Your task to perform on an android device: Play the last video I watched on Youtube Image 0: 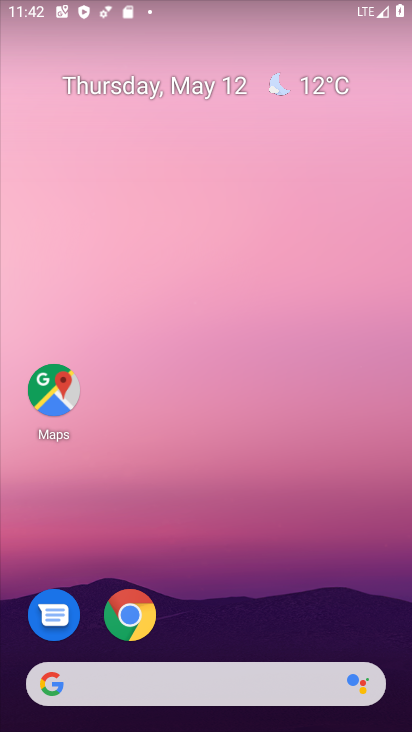
Step 0: drag from (175, 610) to (187, 220)
Your task to perform on an android device: Play the last video I watched on Youtube Image 1: 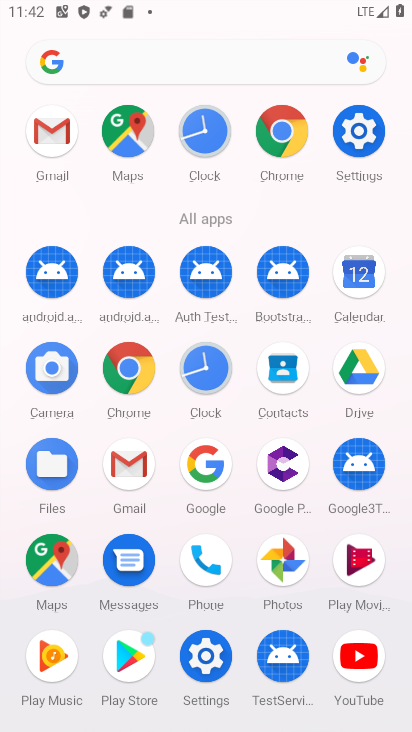
Step 1: click (353, 652)
Your task to perform on an android device: Play the last video I watched on Youtube Image 2: 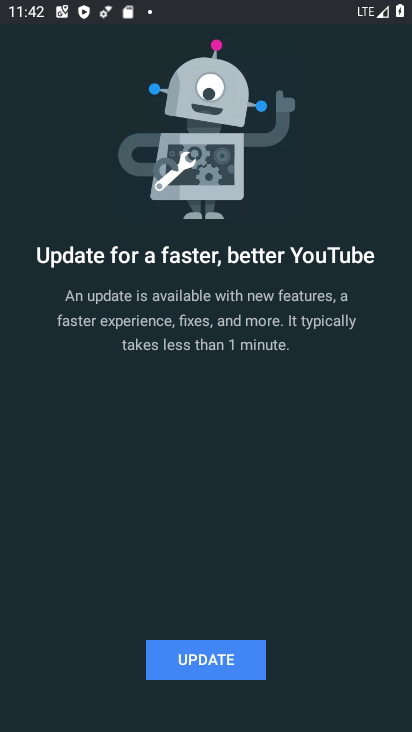
Step 2: click (211, 649)
Your task to perform on an android device: Play the last video I watched on Youtube Image 3: 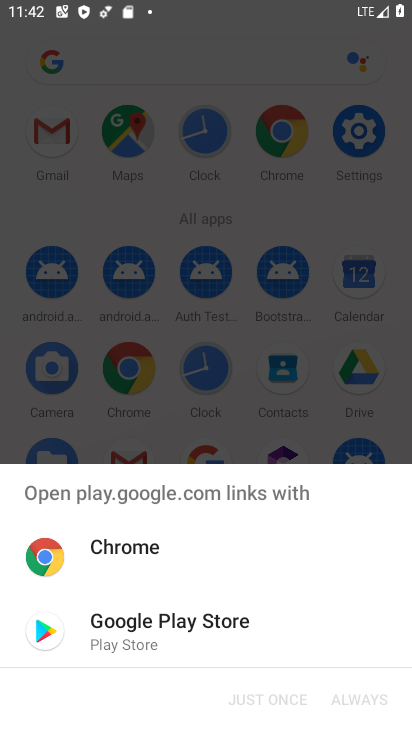
Step 3: click (218, 615)
Your task to perform on an android device: Play the last video I watched on Youtube Image 4: 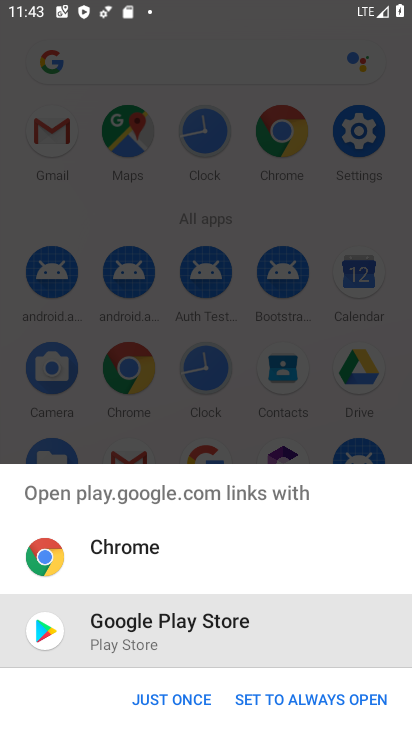
Step 4: click (156, 696)
Your task to perform on an android device: Play the last video I watched on Youtube Image 5: 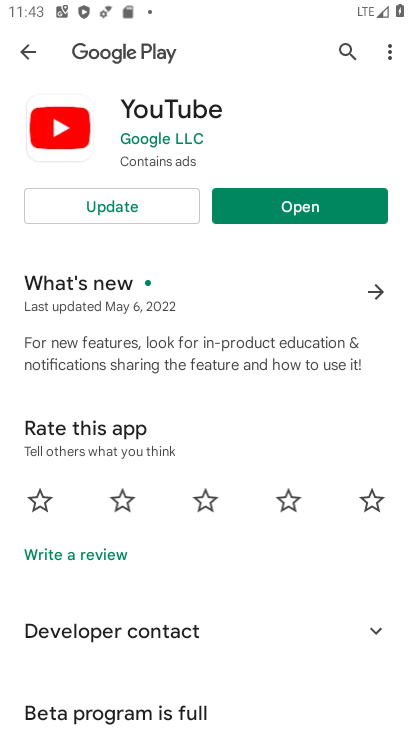
Step 5: click (163, 192)
Your task to perform on an android device: Play the last video I watched on Youtube Image 6: 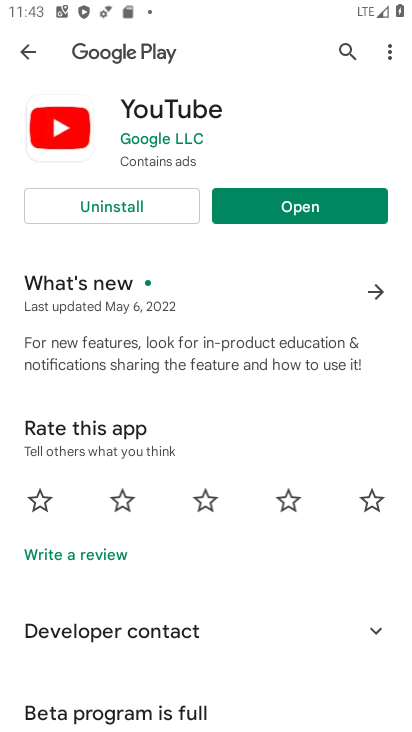
Step 6: click (321, 197)
Your task to perform on an android device: Play the last video I watched on Youtube Image 7: 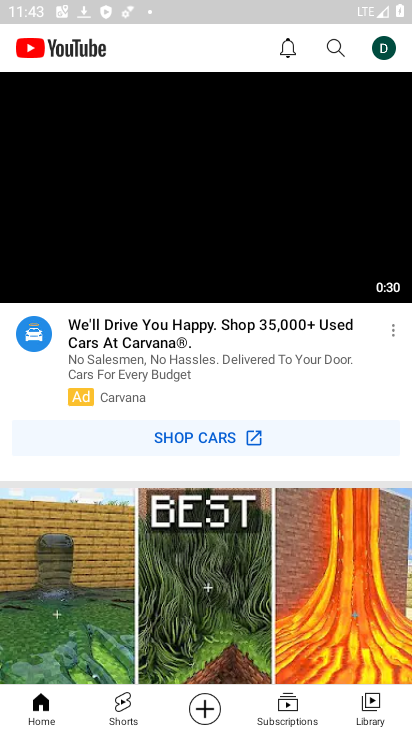
Step 7: drag from (289, 560) to (301, 320)
Your task to perform on an android device: Play the last video I watched on Youtube Image 8: 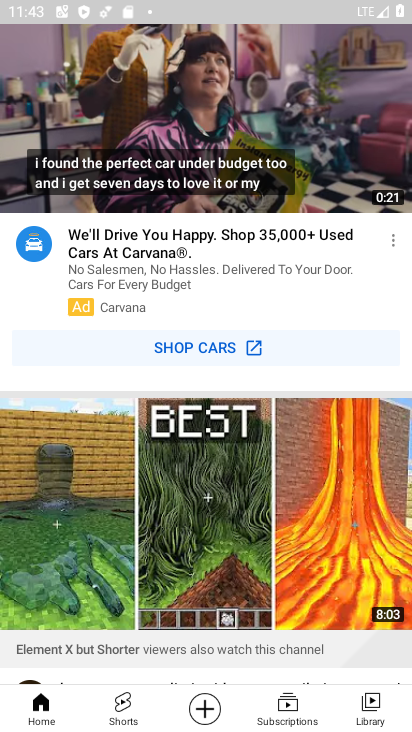
Step 8: drag from (257, 561) to (270, 385)
Your task to perform on an android device: Play the last video I watched on Youtube Image 9: 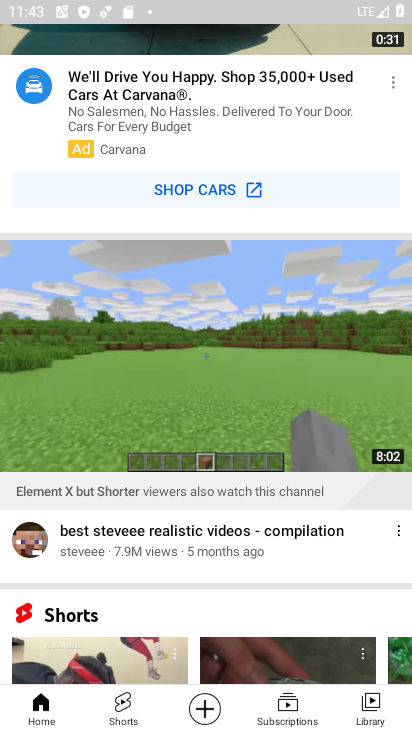
Step 9: drag from (284, 179) to (282, 423)
Your task to perform on an android device: Play the last video I watched on Youtube Image 10: 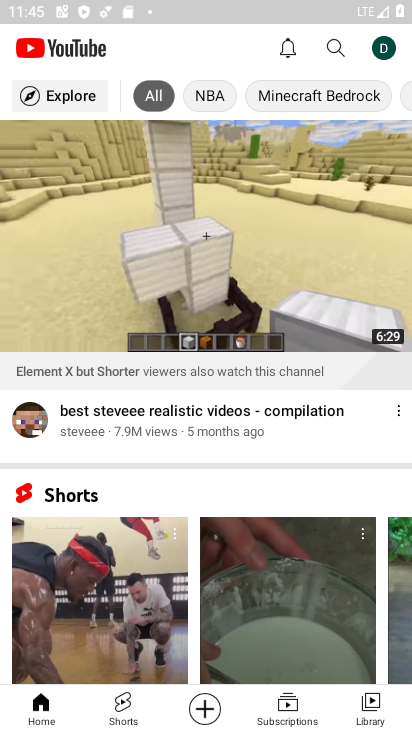
Step 10: click (390, 52)
Your task to perform on an android device: Play the last video I watched on Youtube Image 11: 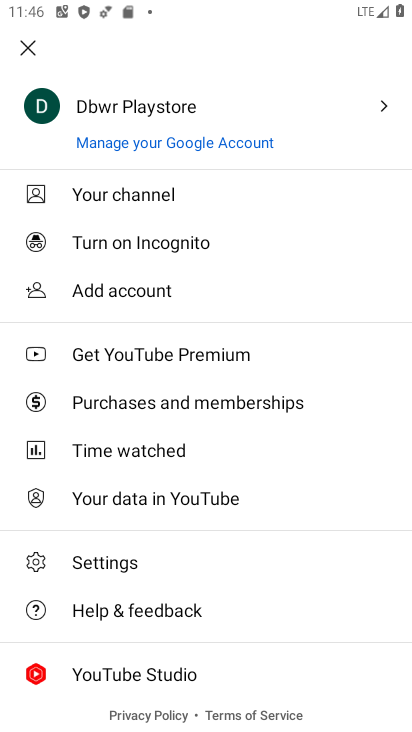
Step 11: drag from (215, 476) to (244, 382)
Your task to perform on an android device: Play the last video I watched on Youtube Image 12: 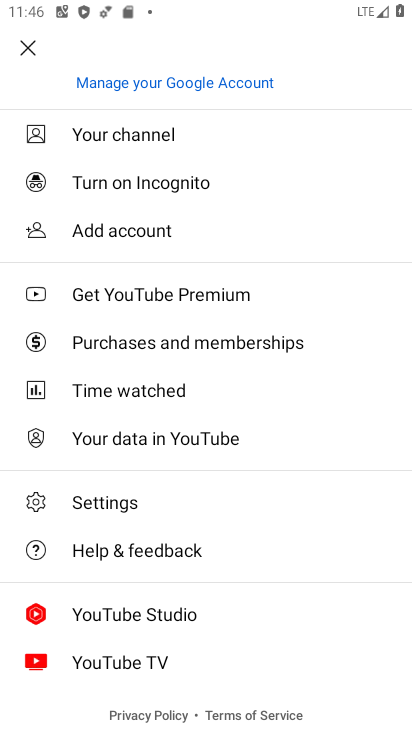
Step 12: drag from (185, 234) to (205, 397)
Your task to perform on an android device: Play the last video I watched on Youtube Image 13: 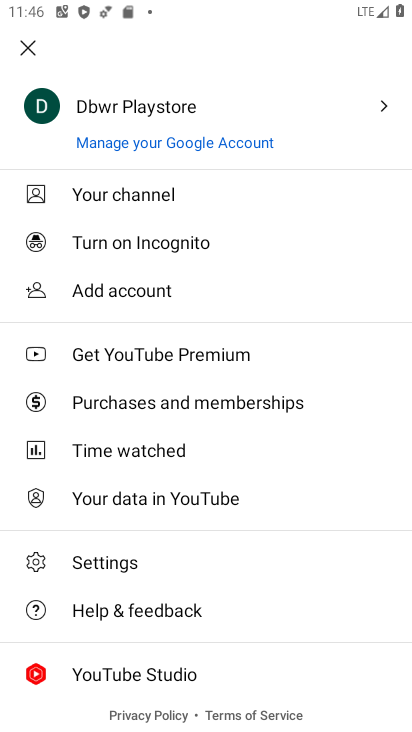
Step 13: drag from (156, 561) to (191, 276)
Your task to perform on an android device: Play the last video I watched on Youtube Image 14: 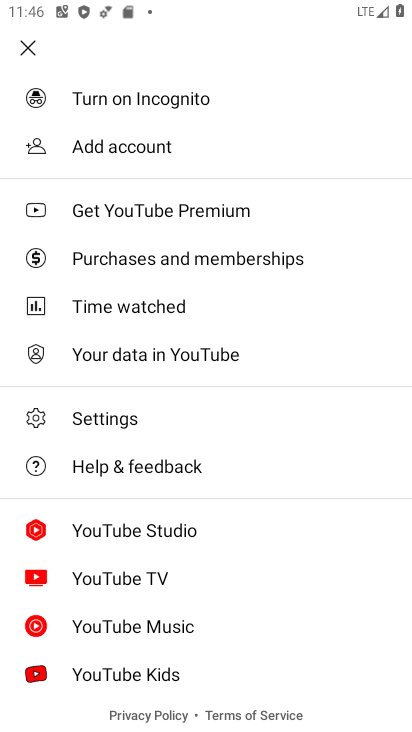
Step 14: drag from (207, 244) to (212, 486)
Your task to perform on an android device: Play the last video I watched on Youtube Image 15: 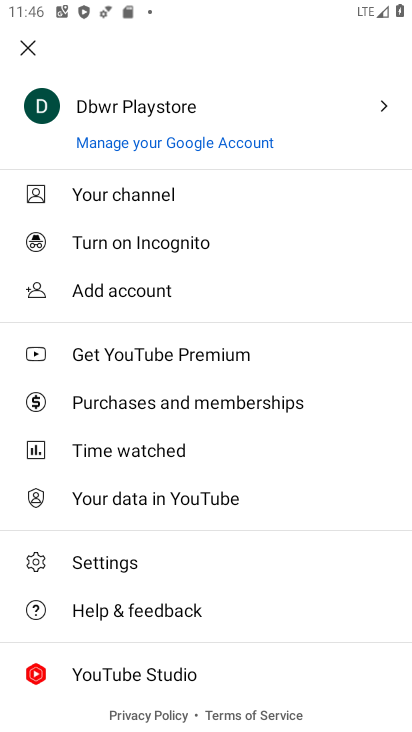
Step 15: click (10, 32)
Your task to perform on an android device: Play the last video I watched on Youtube Image 16: 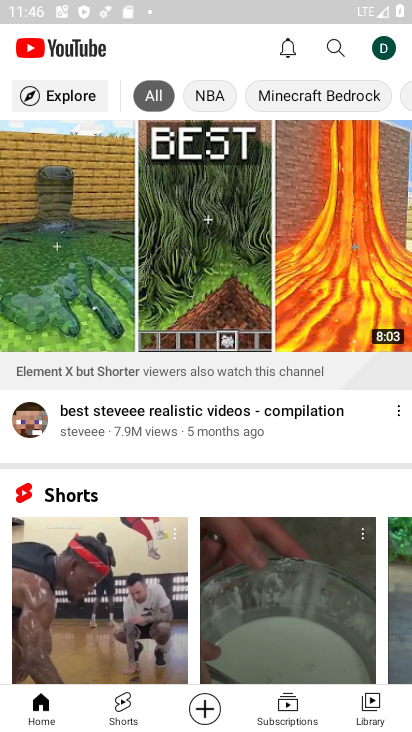
Step 16: click (367, 703)
Your task to perform on an android device: Play the last video I watched on Youtube Image 17: 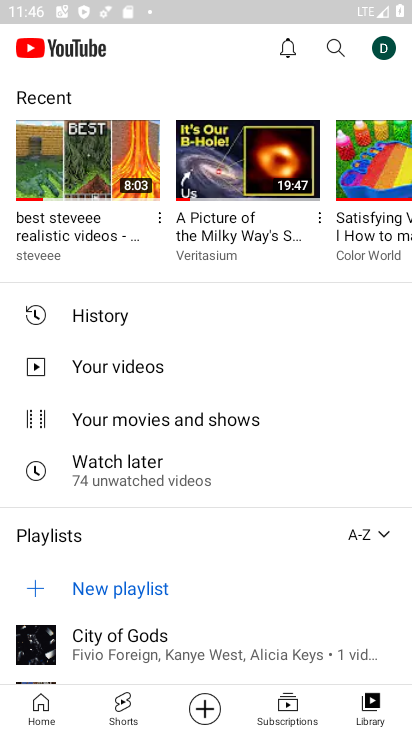
Step 17: click (97, 315)
Your task to perform on an android device: Play the last video I watched on Youtube Image 18: 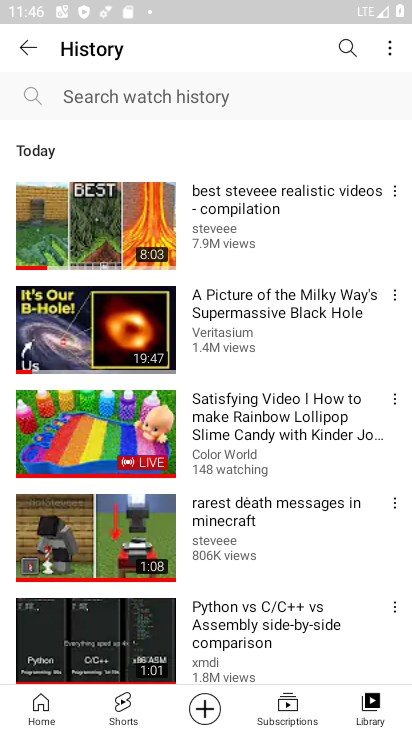
Step 18: drag from (177, 539) to (200, 251)
Your task to perform on an android device: Play the last video I watched on Youtube Image 19: 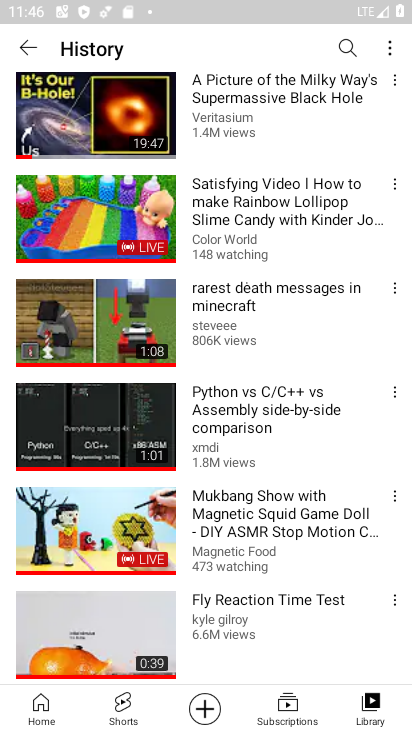
Step 19: drag from (266, 201) to (272, 639)
Your task to perform on an android device: Play the last video I watched on Youtube Image 20: 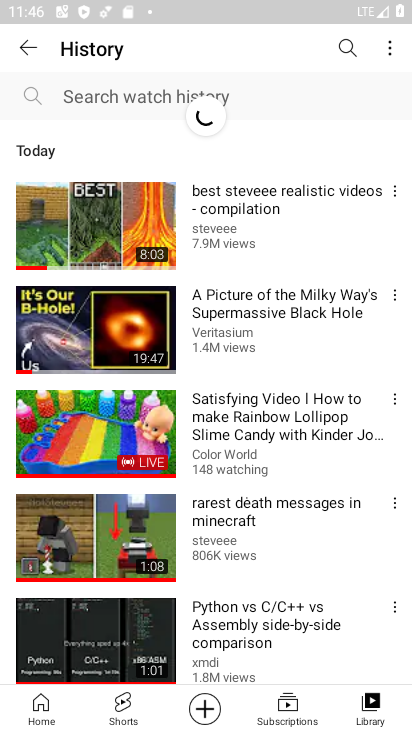
Step 20: click (209, 217)
Your task to perform on an android device: Play the last video I watched on Youtube Image 21: 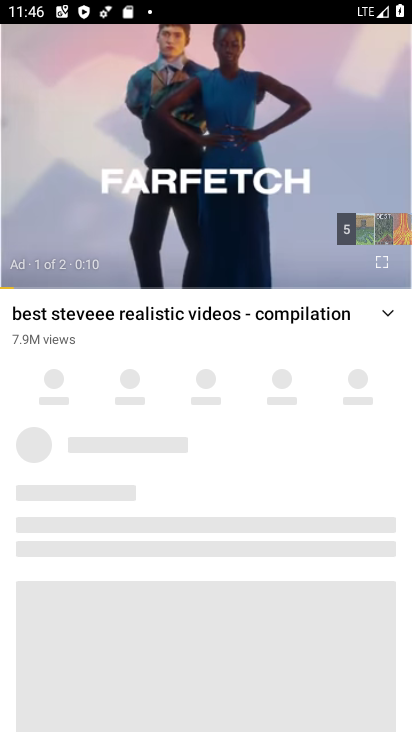
Step 21: click (219, 171)
Your task to perform on an android device: Play the last video I watched on Youtube Image 22: 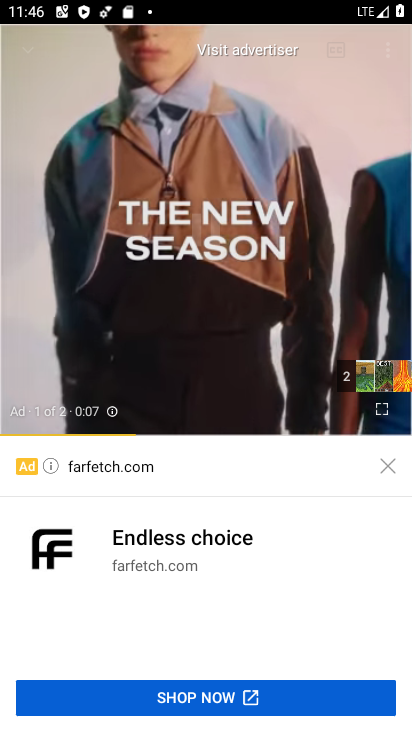
Step 22: click (215, 246)
Your task to perform on an android device: Play the last video I watched on Youtube Image 23: 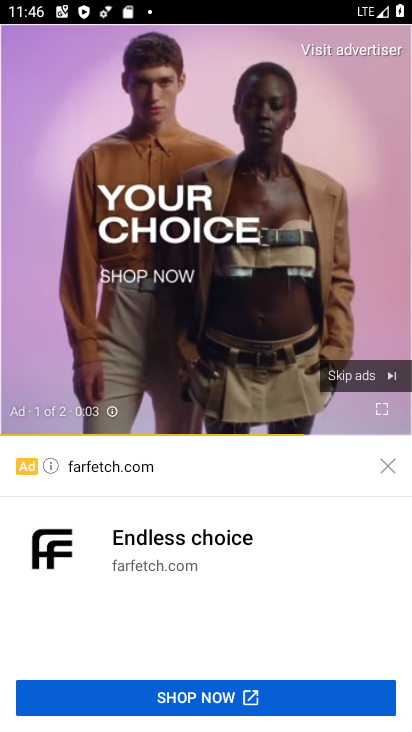
Step 23: task complete